Your task to perform on an android device: change the upload size in google photos Image 0: 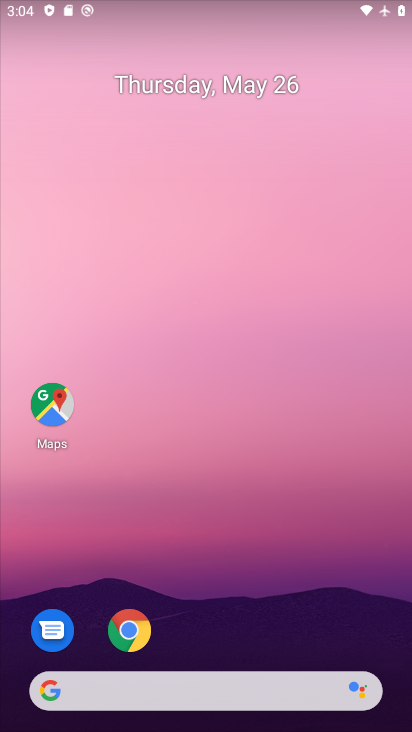
Step 0: drag from (251, 602) to (205, 241)
Your task to perform on an android device: change the upload size in google photos Image 1: 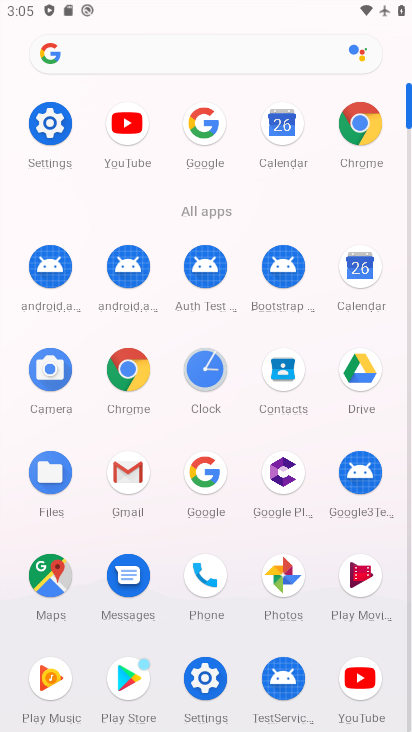
Step 1: click (282, 571)
Your task to perform on an android device: change the upload size in google photos Image 2: 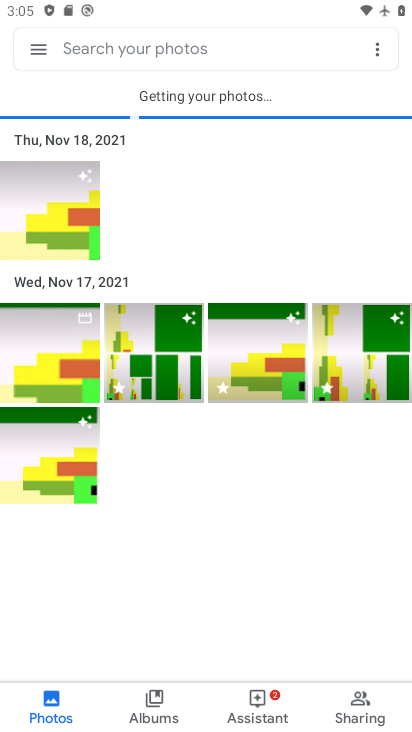
Step 2: click (40, 48)
Your task to perform on an android device: change the upload size in google photos Image 3: 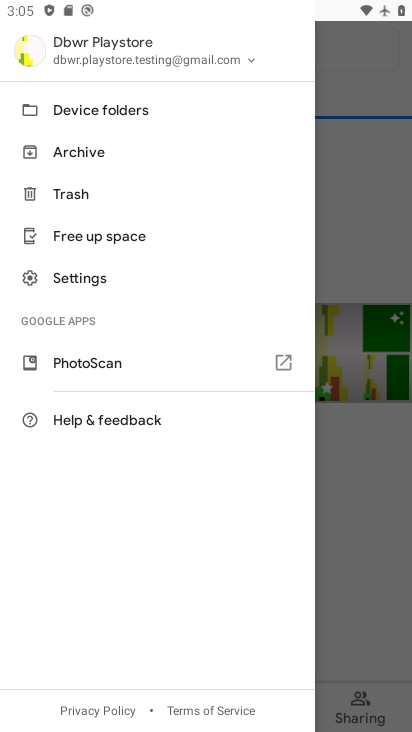
Step 3: click (87, 274)
Your task to perform on an android device: change the upload size in google photos Image 4: 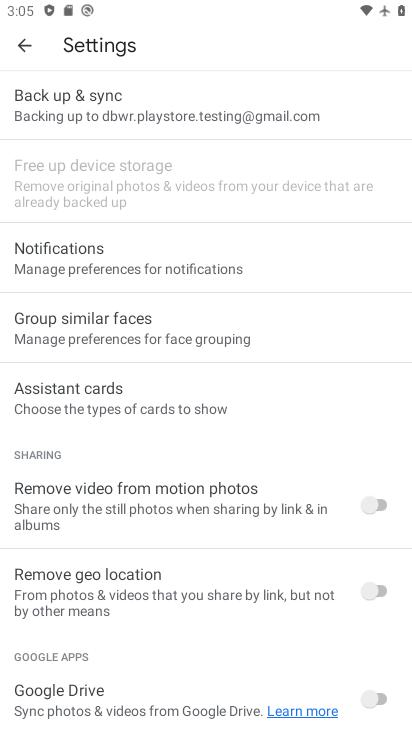
Step 4: click (56, 109)
Your task to perform on an android device: change the upload size in google photos Image 5: 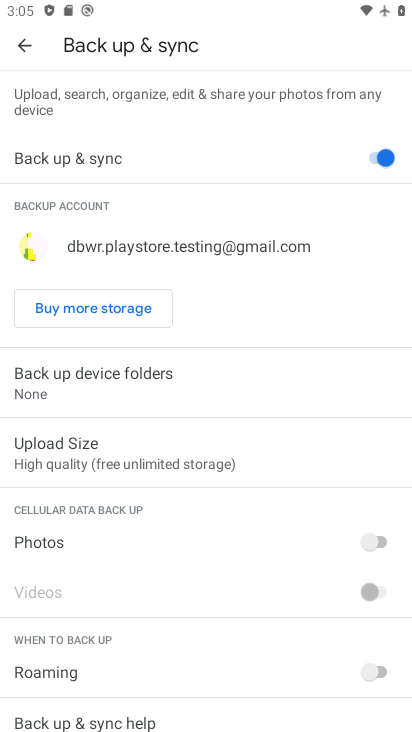
Step 5: click (109, 461)
Your task to perform on an android device: change the upload size in google photos Image 6: 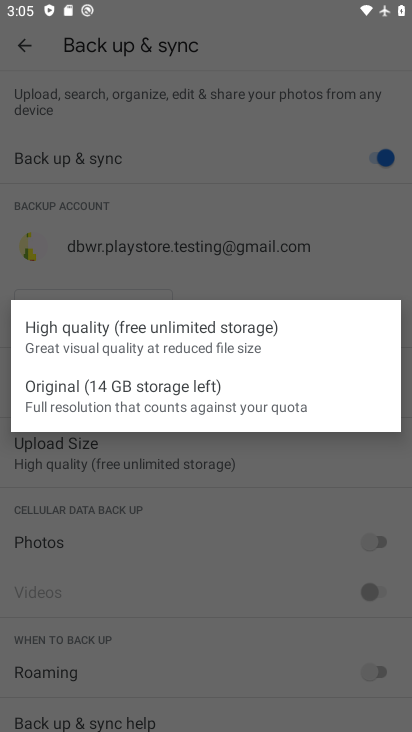
Step 6: click (123, 401)
Your task to perform on an android device: change the upload size in google photos Image 7: 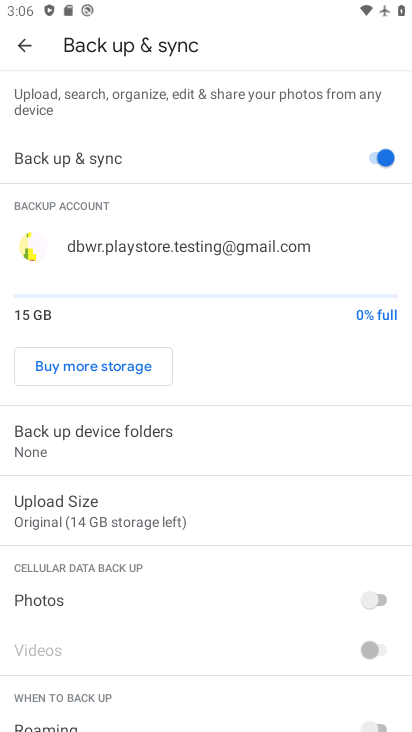
Step 7: task complete